Your task to perform on an android device: Go to sound settings Image 0: 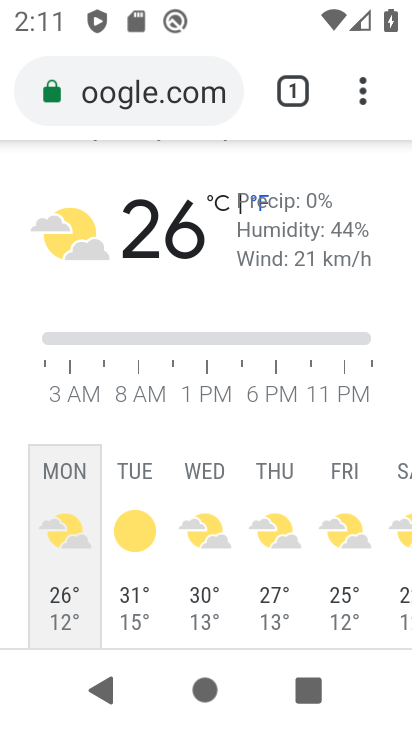
Step 0: press back button
Your task to perform on an android device: Go to sound settings Image 1: 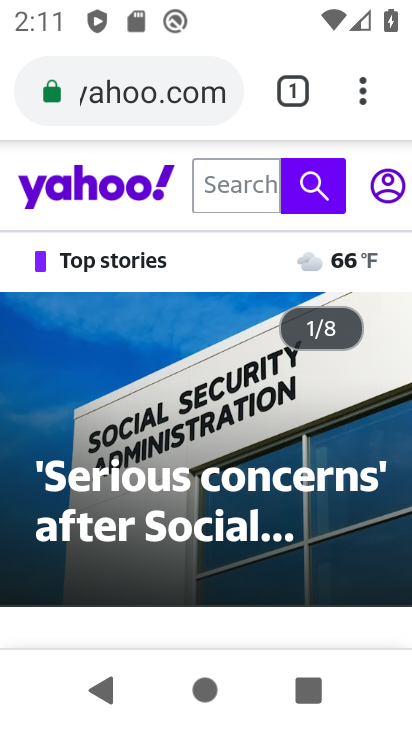
Step 1: press home button
Your task to perform on an android device: Go to sound settings Image 2: 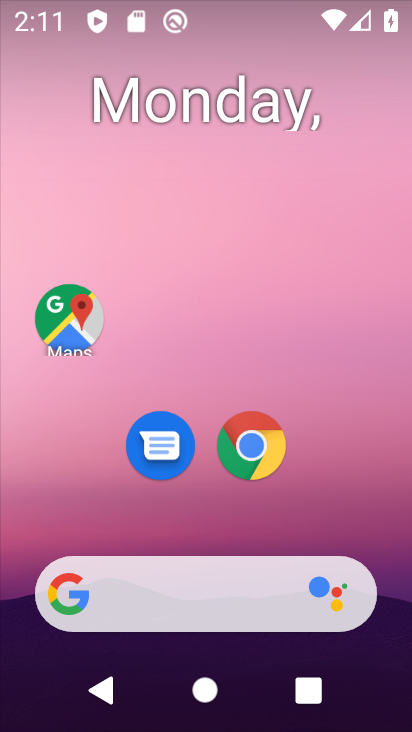
Step 2: drag from (332, 496) to (315, 23)
Your task to perform on an android device: Go to sound settings Image 3: 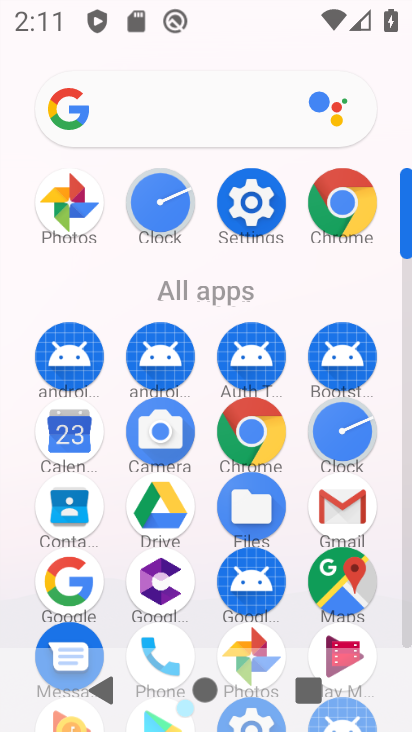
Step 3: click (251, 200)
Your task to perform on an android device: Go to sound settings Image 4: 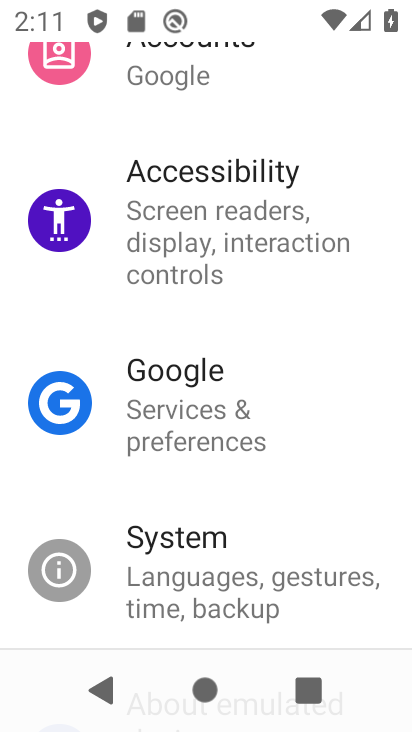
Step 4: drag from (268, 127) to (268, 520)
Your task to perform on an android device: Go to sound settings Image 5: 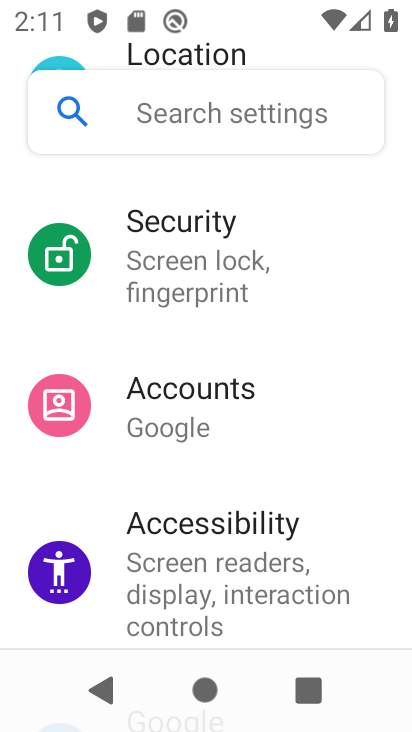
Step 5: drag from (266, 208) to (234, 557)
Your task to perform on an android device: Go to sound settings Image 6: 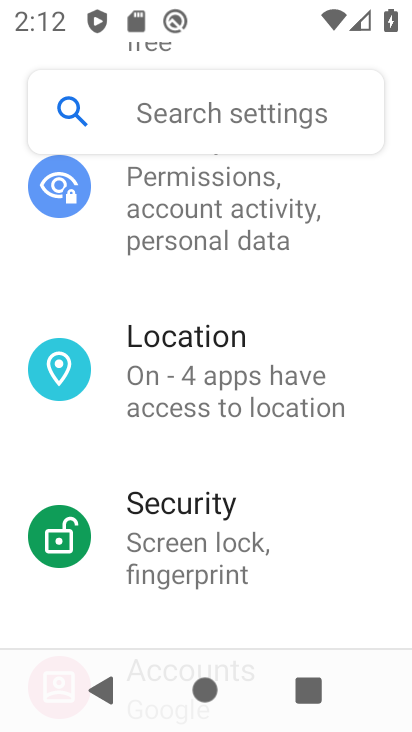
Step 6: drag from (270, 297) to (295, 562)
Your task to perform on an android device: Go to sound settings Image 7: 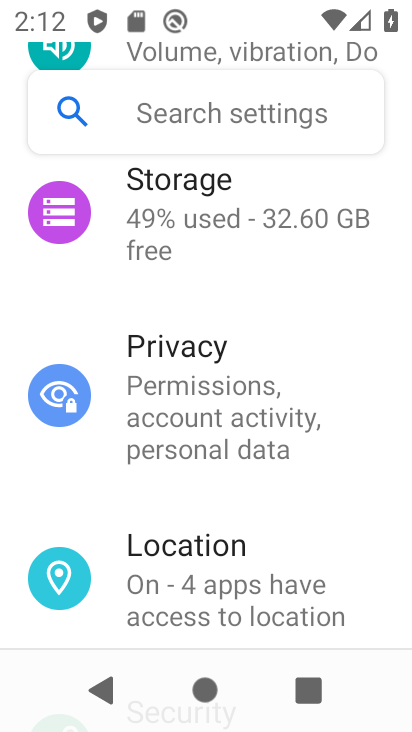
Step 7: drag from (287, 214) to (316, 578)
Your task to perform on an android device: Go to sound settings Image 8: 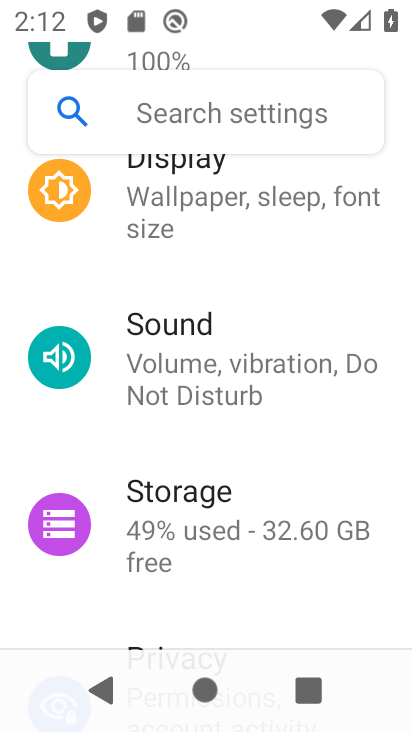
Step 8: click (216, 337)
Your task to perform on an android device: Go to sound settings Image 9: 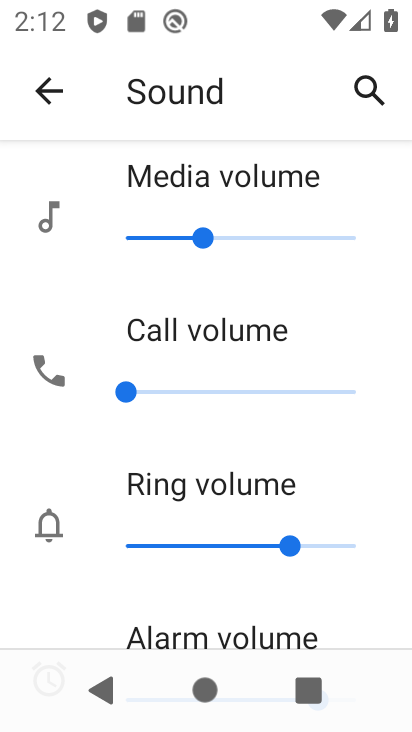
Step 9: drag from (229, 522) to (277, 148)
Your task to perform on an android device: Go to sound settings Image 10: 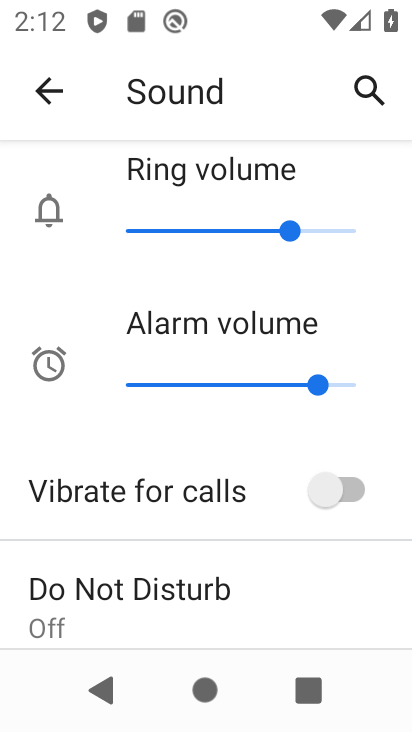
Step 10: drag from (153, 498) to (189, 118)
Your task to perform on an android device: Go to sound settings Image 11: 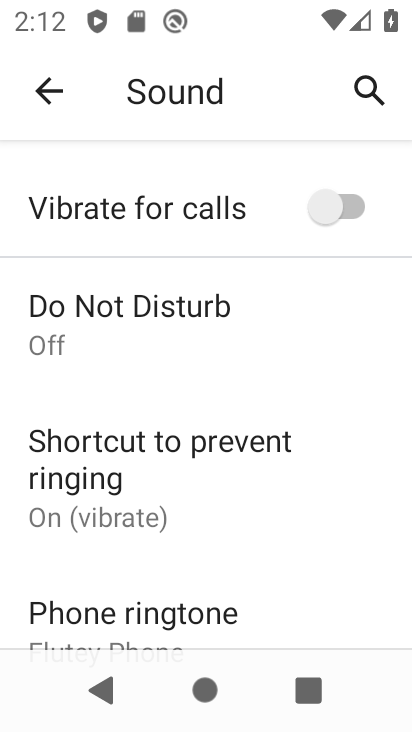
Step 11: drag from (216, 461) to (202, 170)
Your task to perform on an android device: Go to sound settings Image 12: 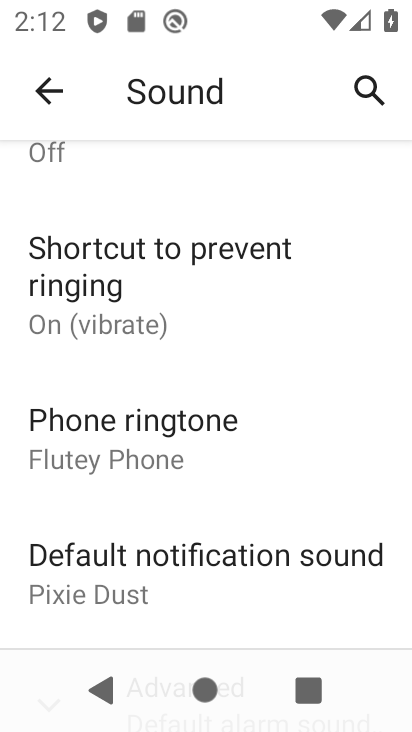
Step 12: drag from (190, 476) to (216, 186)
Your task to perform on an android device: Go to sound settings Image 13: 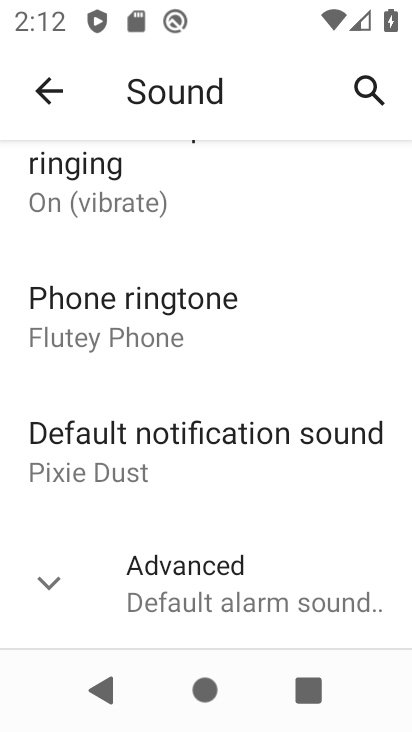
Step 13: drag from (193, 571) to (213, 310)
Your task to perform on an android device: Go to sound settings Image 14: 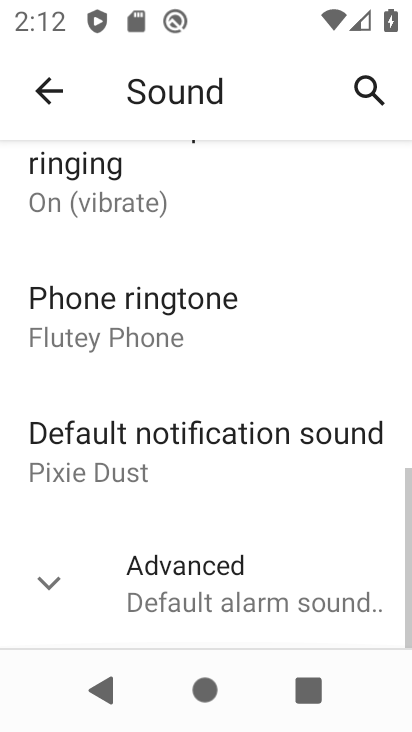
Step 14: click (50, 566)
Your task to perform on an android device: Go to sound settings Image 15: 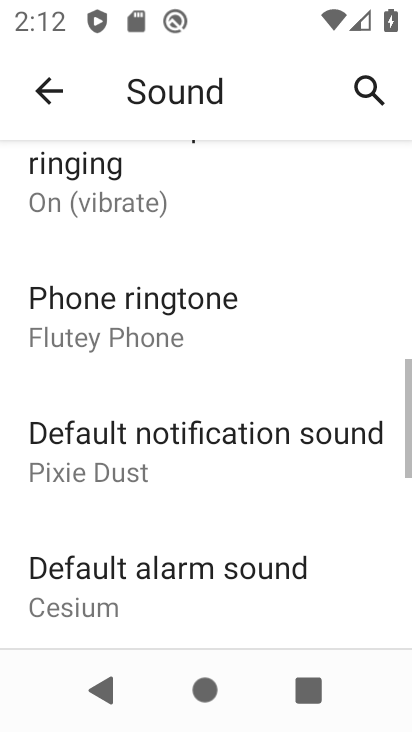
Step 15: task complete